Your task to perform on an android device: Go to Amazon Image 0: 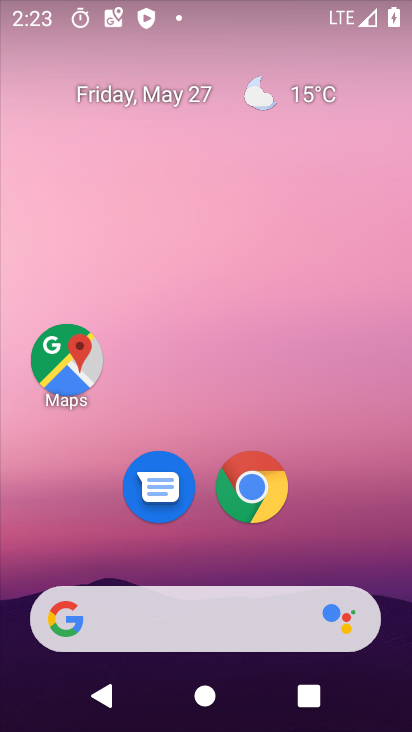
Step 0: click (255, 486)
Your task to perform on an android device: Go to Amazon Image 1: 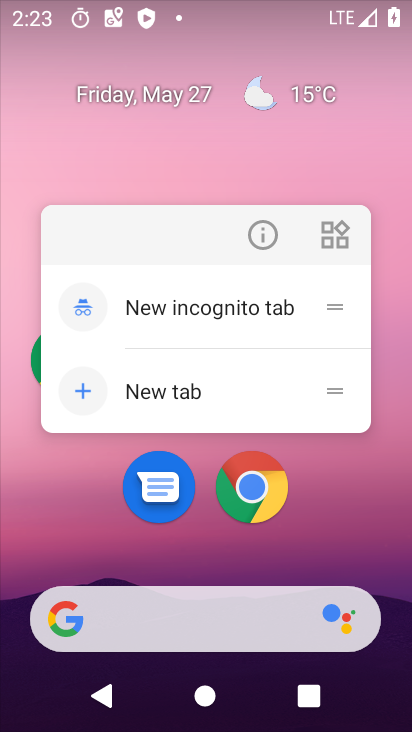
Step 1: click (255, 488)
Your task to perform on an android device: Go to Amazon Image 2: 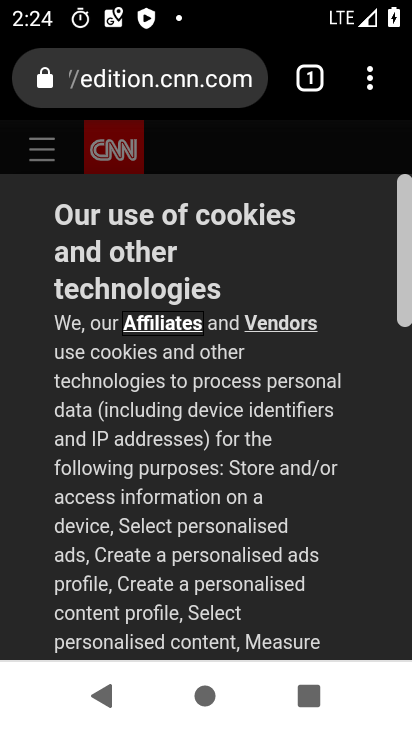
Step 2: click (212, 84)
Your task to perform on an android device: Go to Amazon Image 3: 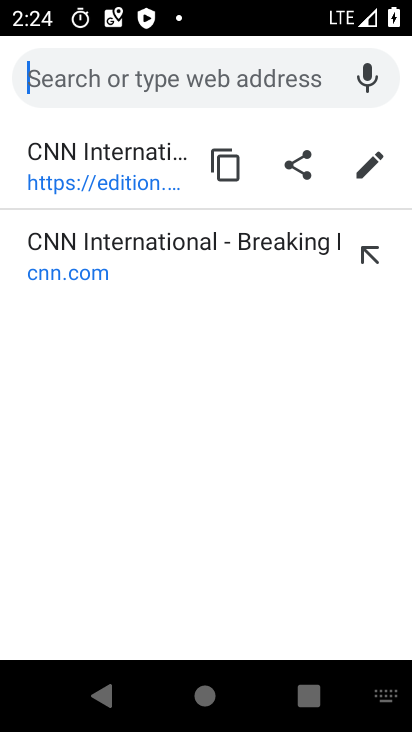
Step 3: type "amazon"
Your task to perform on an android device: Go to Amazon Image 4: 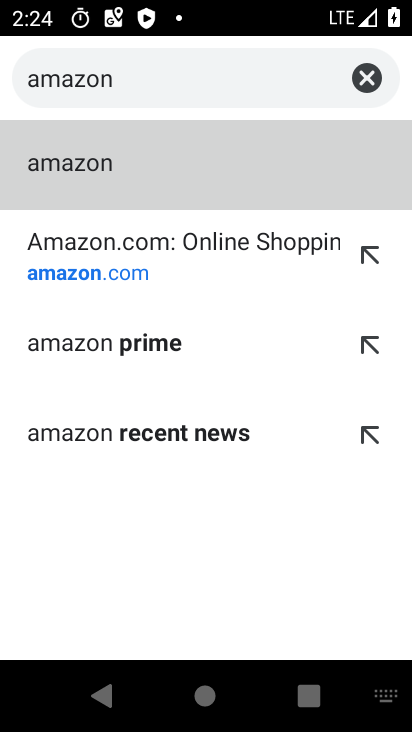
Step 4: click (77, 275)
Your task to perform on an android device: Go to Amazon Image 5: 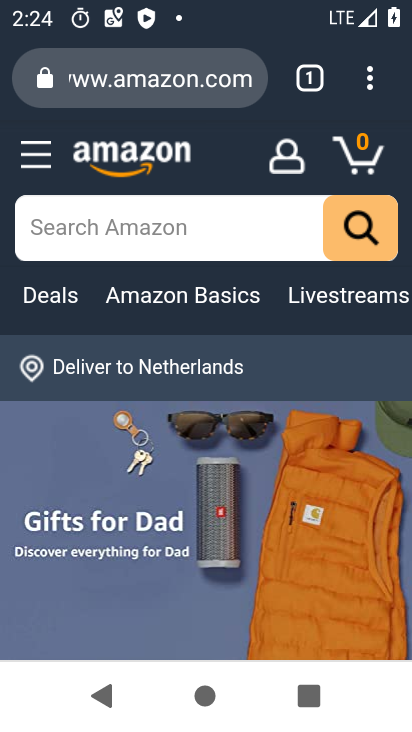
Step 5: task complete